Your task to perform on an android device: Is it going to rain today? Image 0: 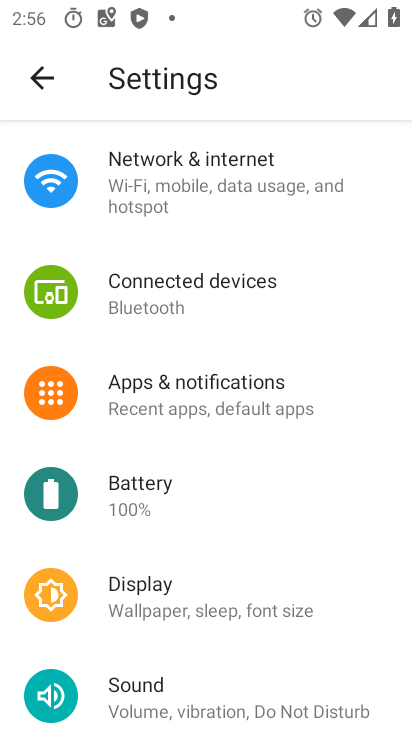
Step 0: press home button
Your task to perform on an android device: Is it going to rain today? Image 1: 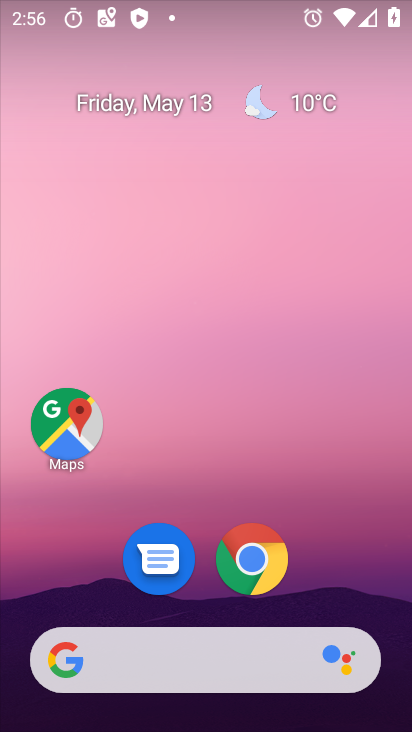
Step 1: drag from (206, 600) to (233, 244)
Your task to perform on an android device: Is it going to rain today? Image 2: 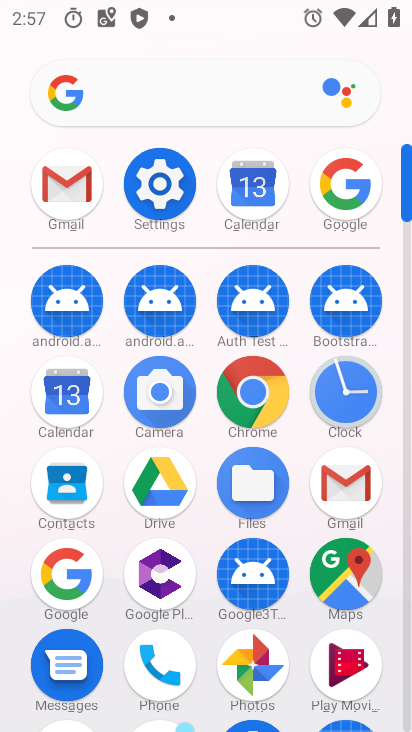
Step 2: click (90, 573)
Your task to perform on an android device: Is it going to rain today? Image 3: 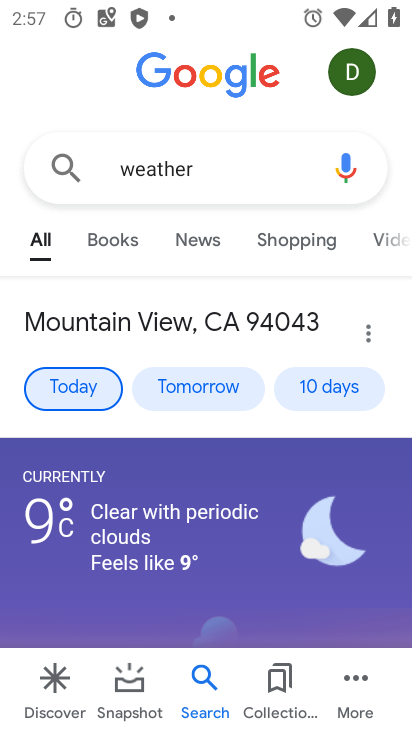
Step 3: task complete